Your task to perform on an android device: Show me productivity apps on the Play Store Image 0: 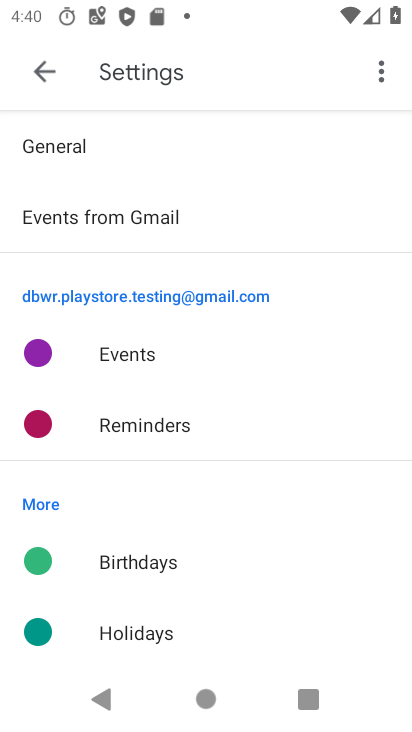
Step 0: press home button
Your task to perform on an android device: Show me productivity apps on the Play Store Image 1: 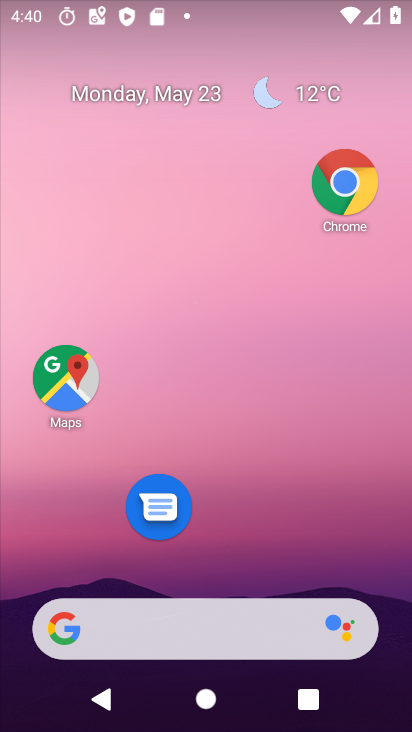
Step 1: drag from (203, 563) to (190, 95)
Your task to perform on an android device: Show me productivity apps on the Play Store Image 2: 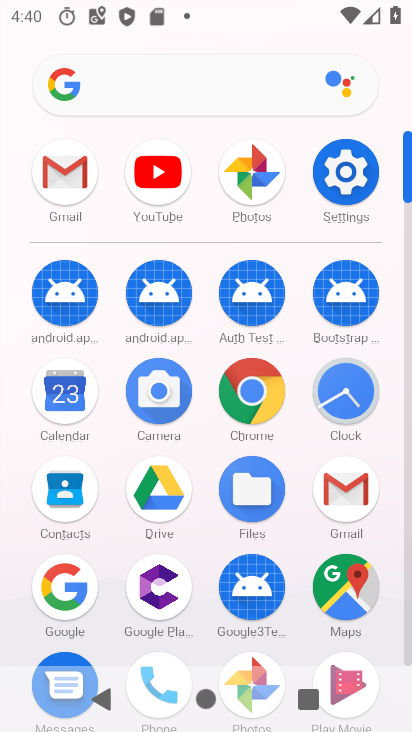
Step 2: drag from (201, 623) to (232, 169)
Your task to perform on an android device: Show me productivity apps on the Play Store Image 3: 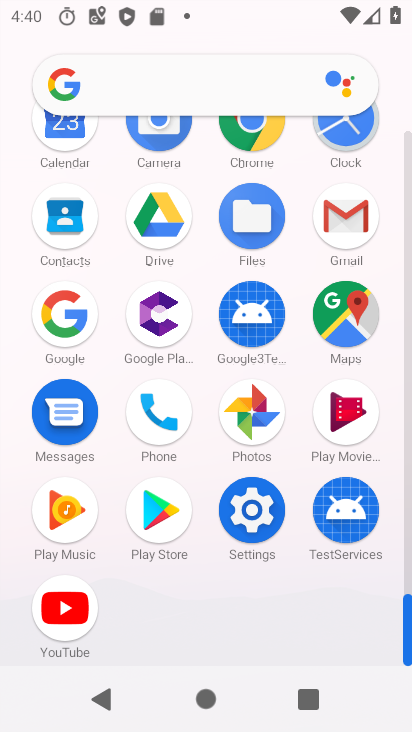
Step 3: click (147, 507)
Your task to perform on an android device: Show me productivity apps on the Play Store Image 4: 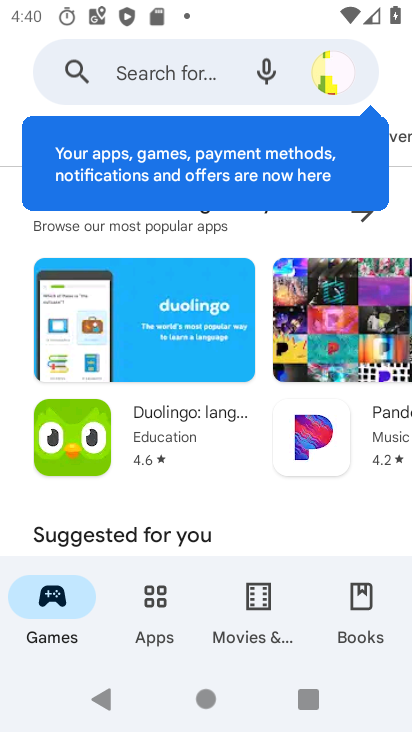
Step 4: click (154, 620)
Your task to perform on an android device: Show me productivity apps on the Play Store Image 5: 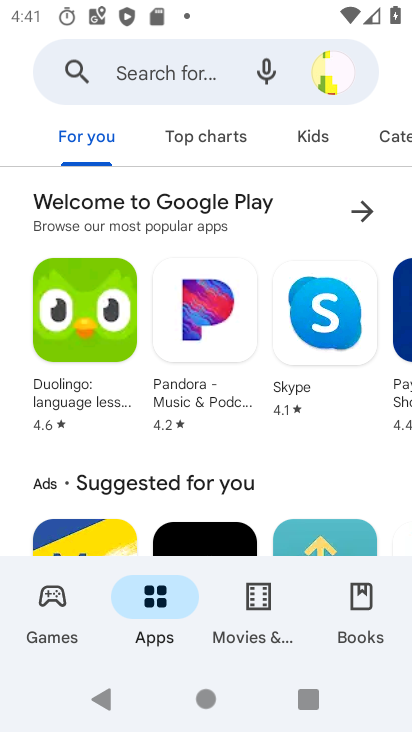
Step 5: click (387, 134)
Your task to perform on an android device: Show me productivity apps on the Play Store Image 6: 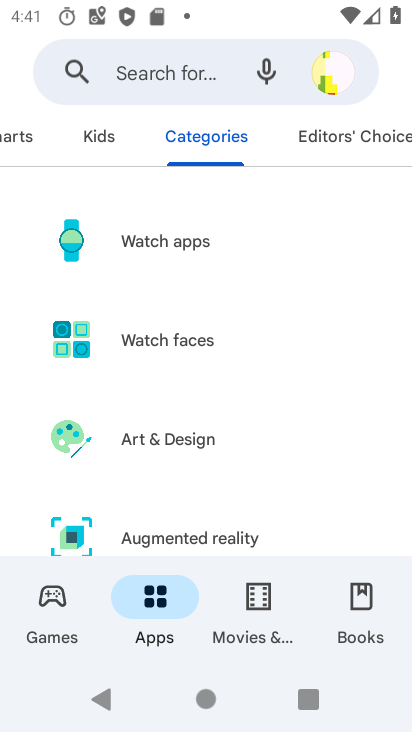
Step 6: drag from (111, 503) to (141, 101)
Your task to perform on an android device: Show me productivity apps on the Play Store Image 7: 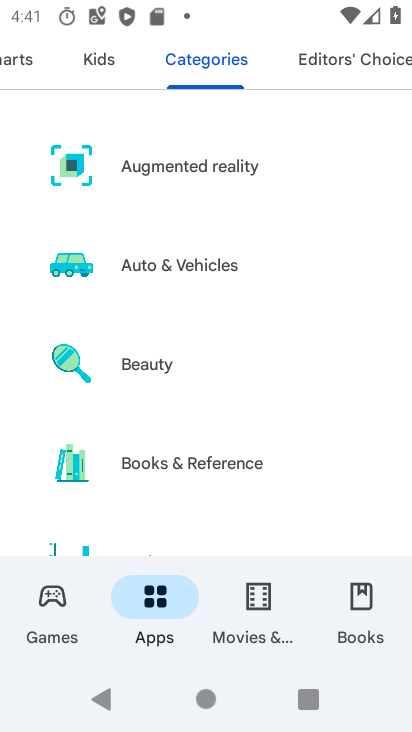
Step 7: drag from (143, 503) to (198, 32)
Your task to perform on an android device: Show me productivity apps on the Play Store Image 8: 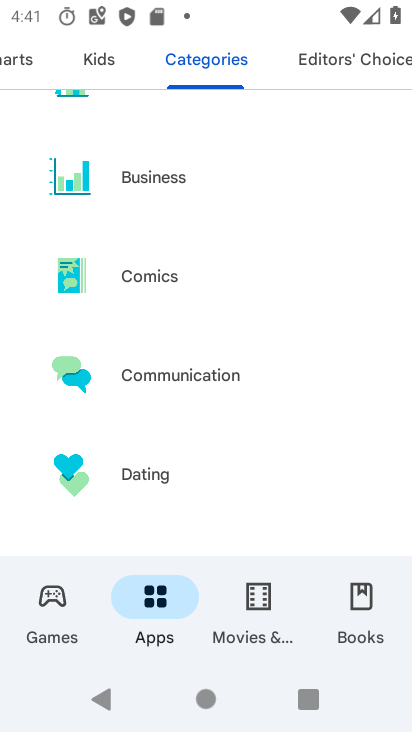
Step 8: drag from (105, 529) to (131, 157)
Your task to perform on an android device: Show me productivity apps on the Play Store Image 9: 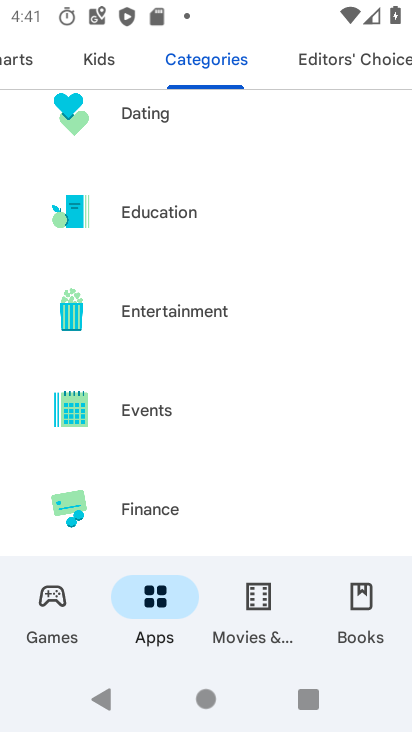
Step 9: drag from (93, 542) to (166, 136)
Your task to perform on an android device: Show me productivity apps on the Play Store Image 10: 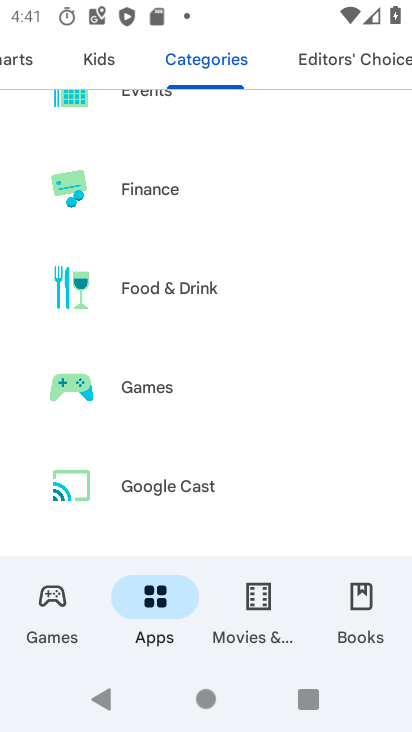
Step 10: drag from (91, 550) to (178, 131)
Your task to perform on an android device: Show me productivity apps on the Play Store Image 11: 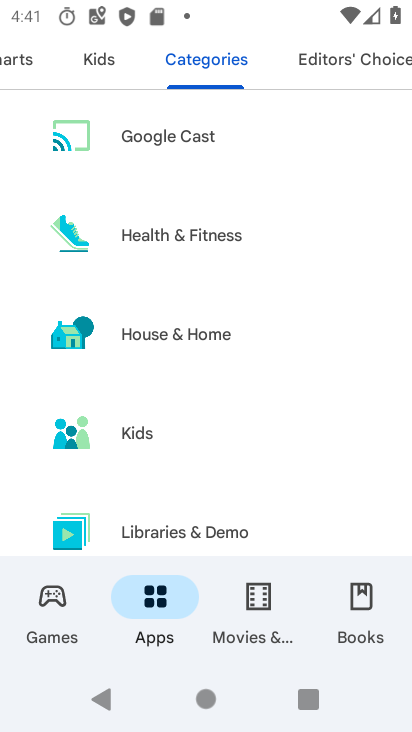
Step 11: drag from (101, 472) to (157, 185)
Your task to perform on an android device: Show me productivity apps on the Play Store Image 12: 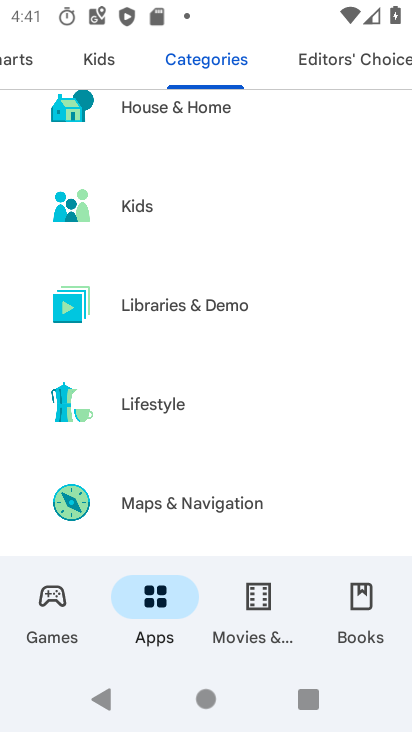
Step 12: drag from (154, 449) to (193, 138)
Your task to perform on an android device: Show me productivity apps on the Play Store Image 13: 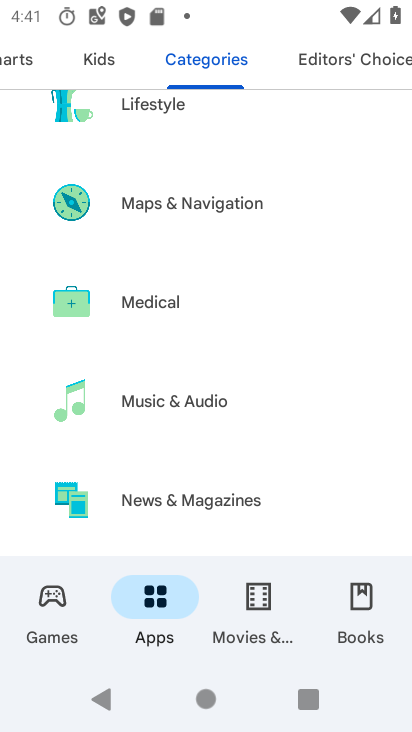
Step 13: drag from (117, 467) to (144, 138)
Your task to perform on an android device: Show me productivity apps on the Play Store Image 14: 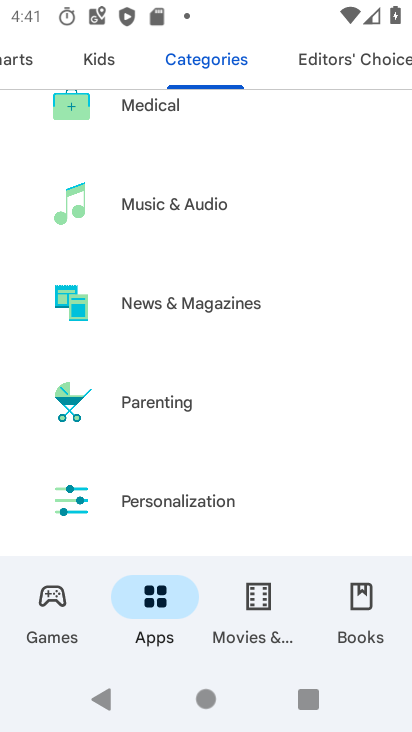
Step 14: drag from (104, 456) to (174, 133)
Your task to perform on an android device: Show me productivity apps on the Play Store Image 15: 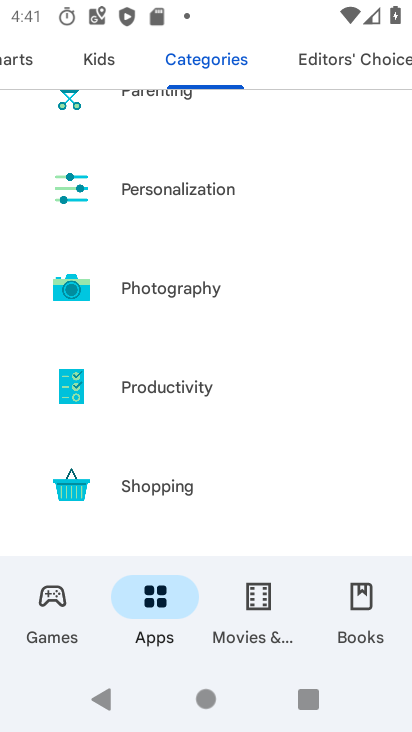
Step 15: click (134, 387)
Your task to perform on an android device: Show me productivity apps on the Play Store Image 16: 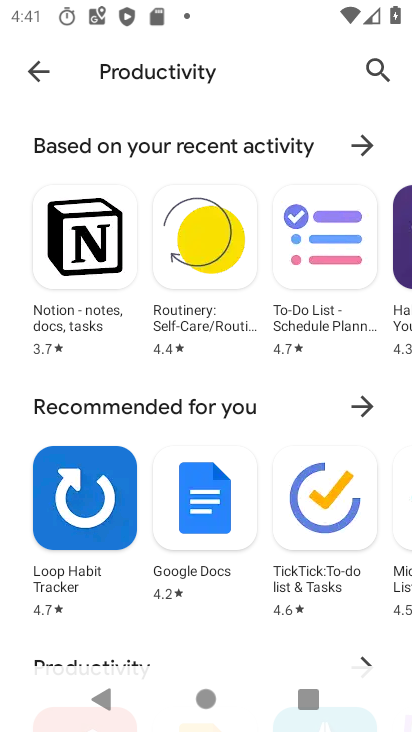
Step 16: task complete